Your task to perform on an android device: Go to network settings Image 0: 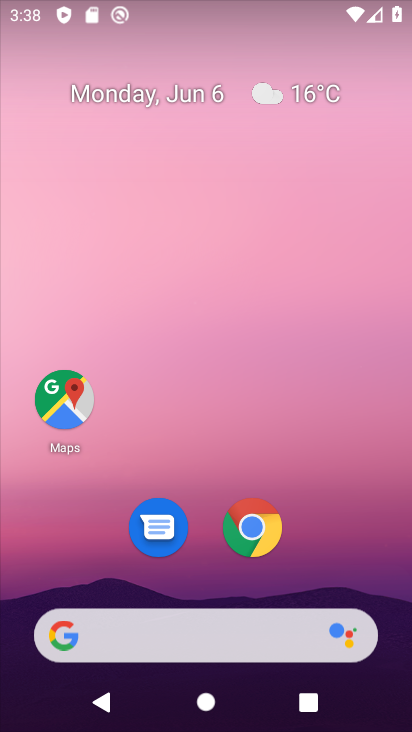
Step 0: drag from (335, 522) to (264, 118)
Your task to perform on an android device: Go to network settings Image 1: 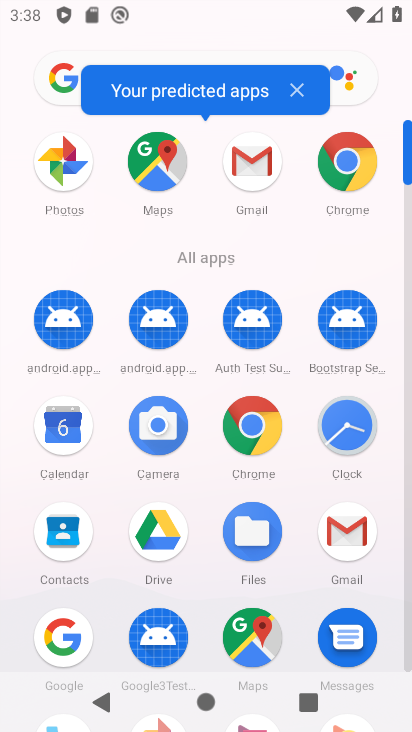
Step 1: drag from (281, 561) to (187, 91)
Your task to perform on an android device: Go to network settings Image 2: 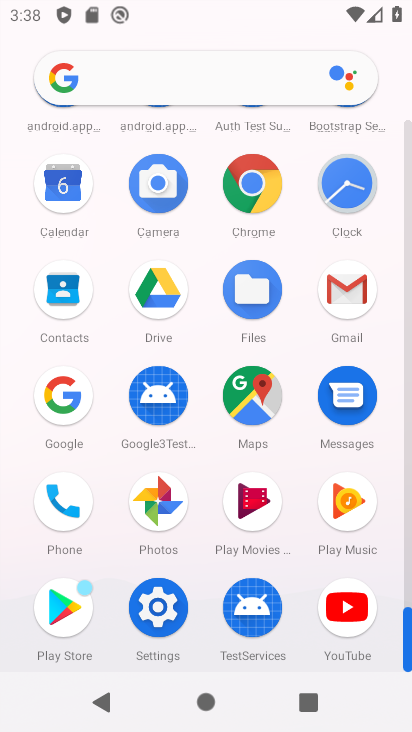
Step 2: click (150, 616)
Your task to perform on an android device: Go to network settings Image 3: 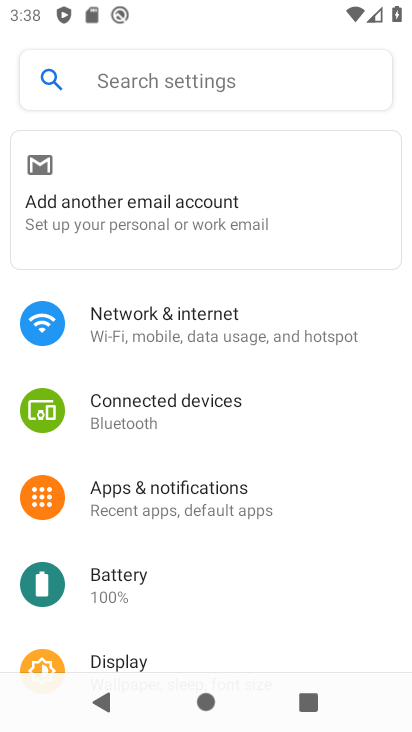
Step 3: click (191, 327)
Your task to perform on an android device: Go to network settings Image 4: 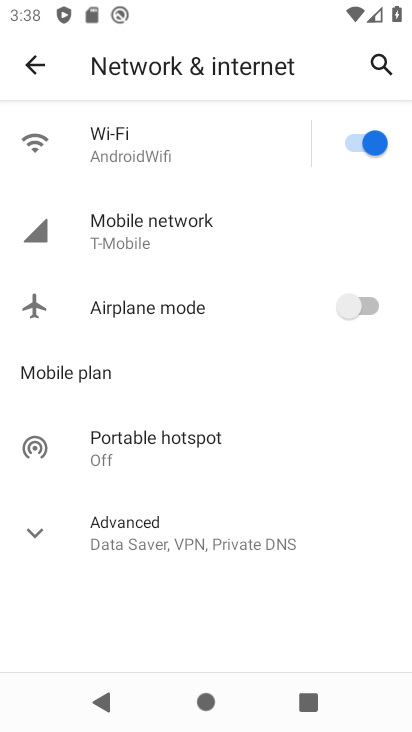
Step 4: task complete